Your task to perform on an android device: Search for custom wallets on etsy. Image 0: 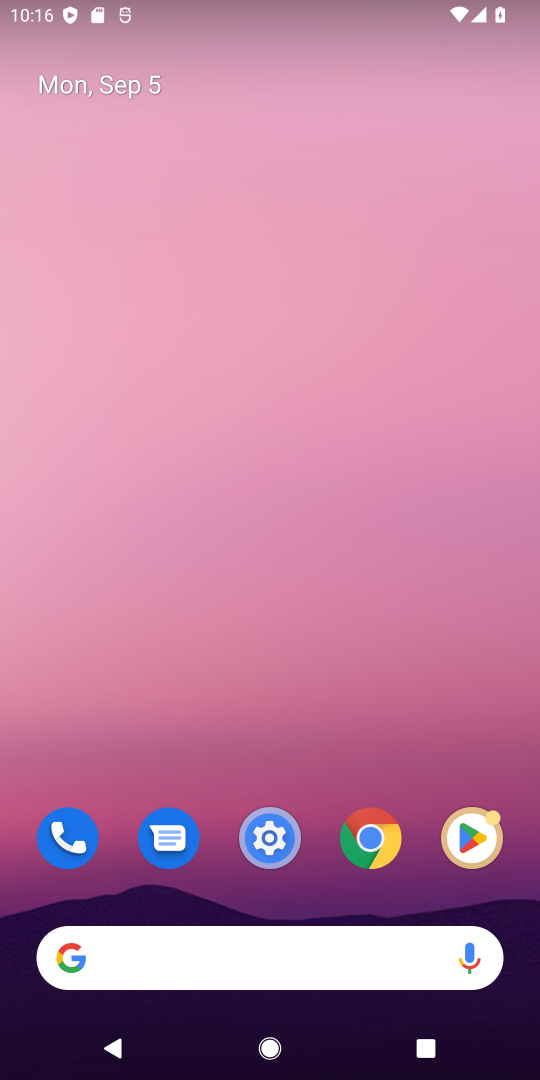
Step 0: click (229, 944)
Your task to perform on an android device: Search for custom wallets on etsy. Image 1: 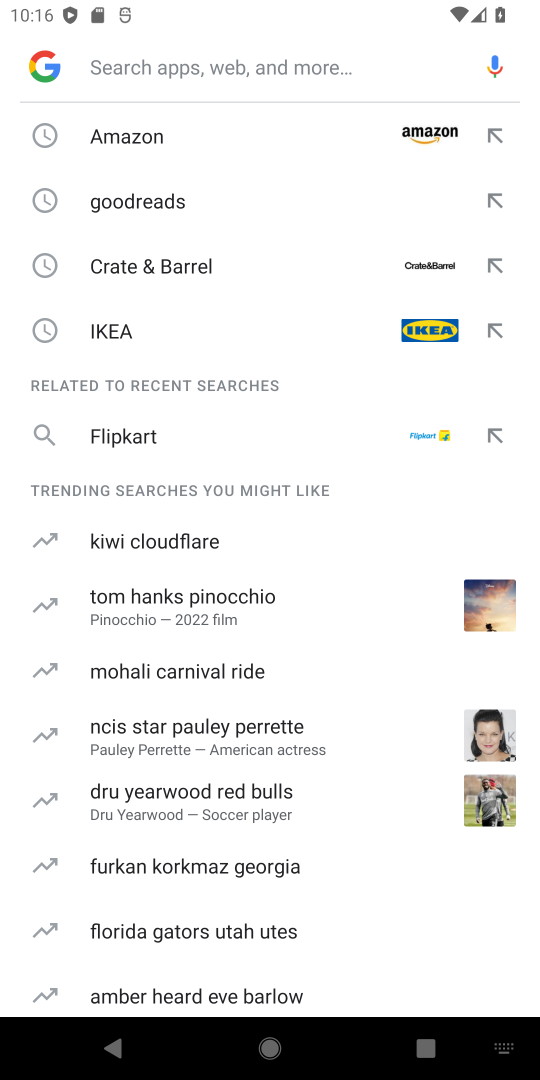
Step 1: type "etsy"
Your task to perform on an android device: Search for custom wallets on etsy. Image 2: 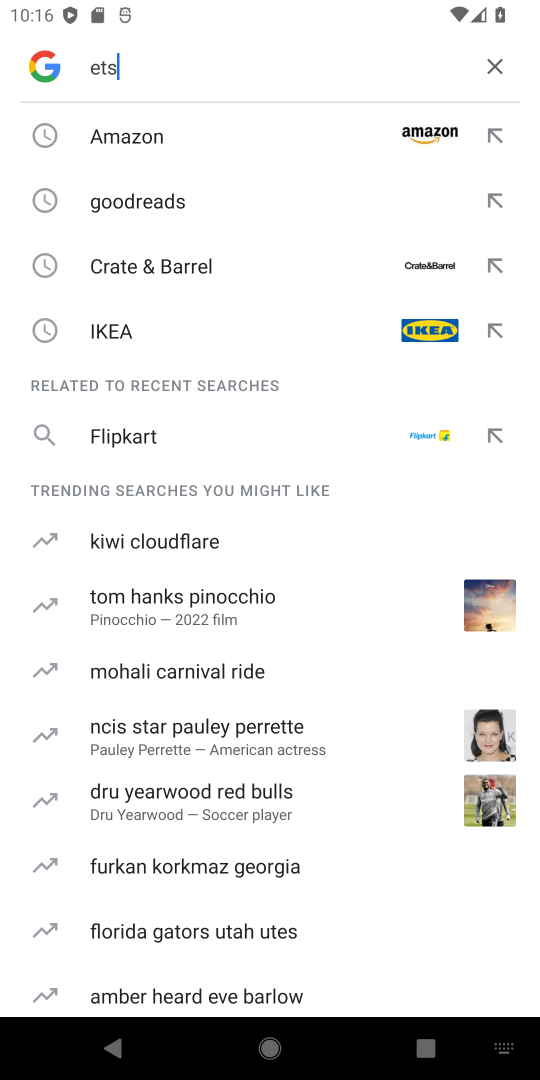
Step 2: type ""
Your task to perform on an android device: Search for custom wallets on etsy. Image 3: 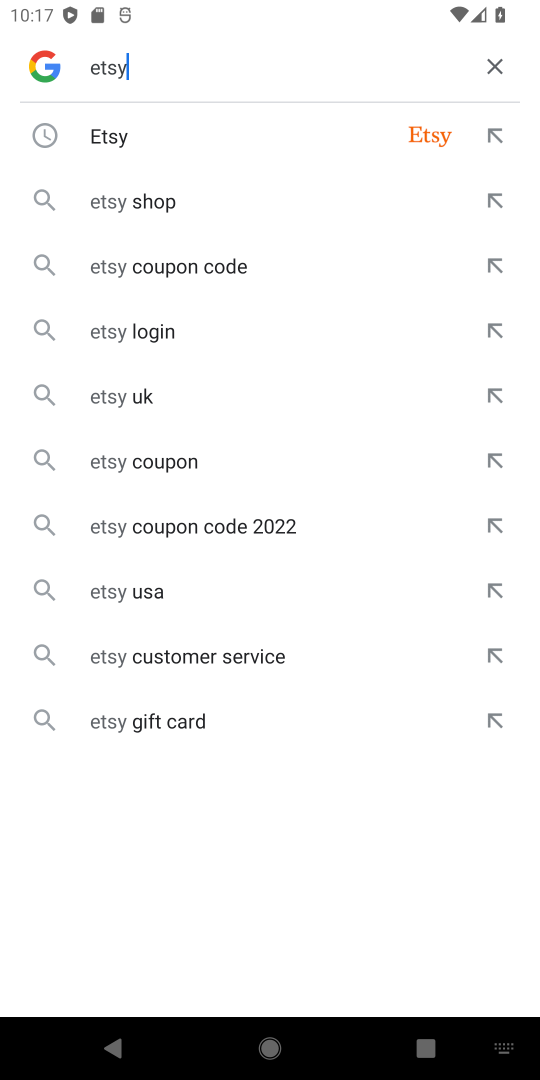
Step 3: click (118, 123)
Your task to perform on an android device: Search for custom wallets on etsy. Image 4: 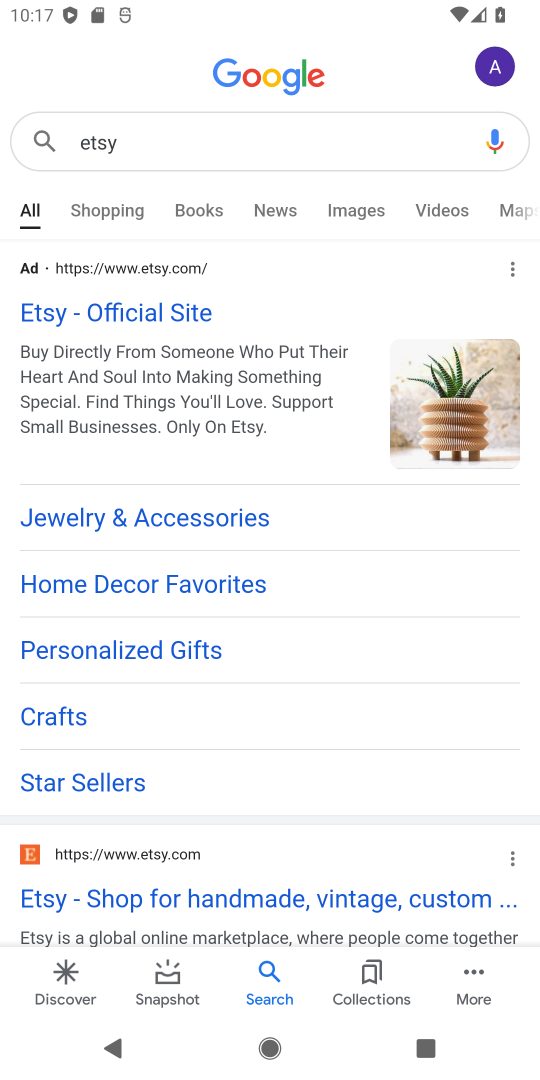
Step 4: drag from (197, 779) to (257, 424)
Your task to perform on an android device: Search for custom wallets on etsy. Image 5: 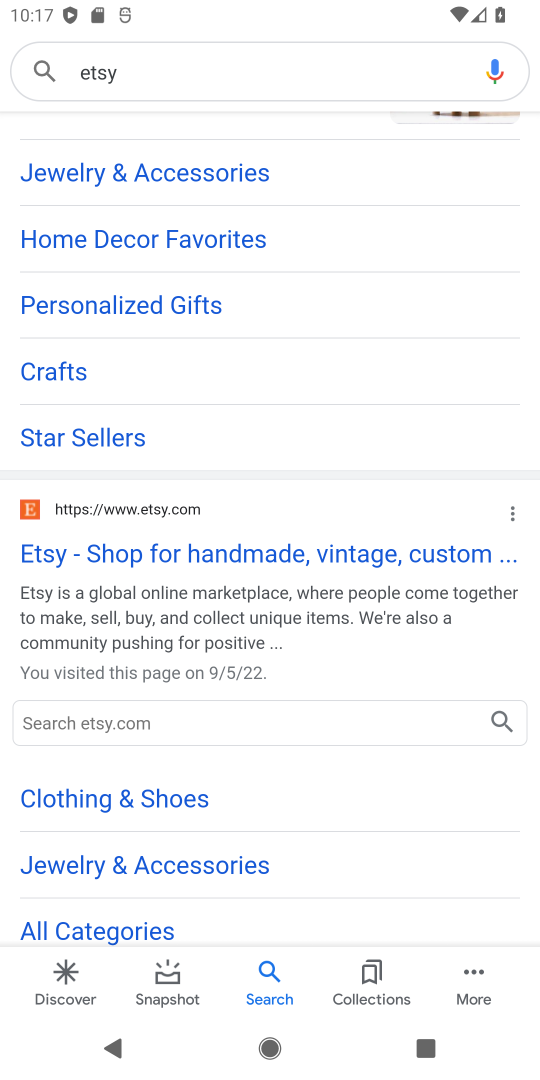
Step 5: click (239, 572)
Your task to perform on an android device: Search for custom wallets on etsy. Image 6: 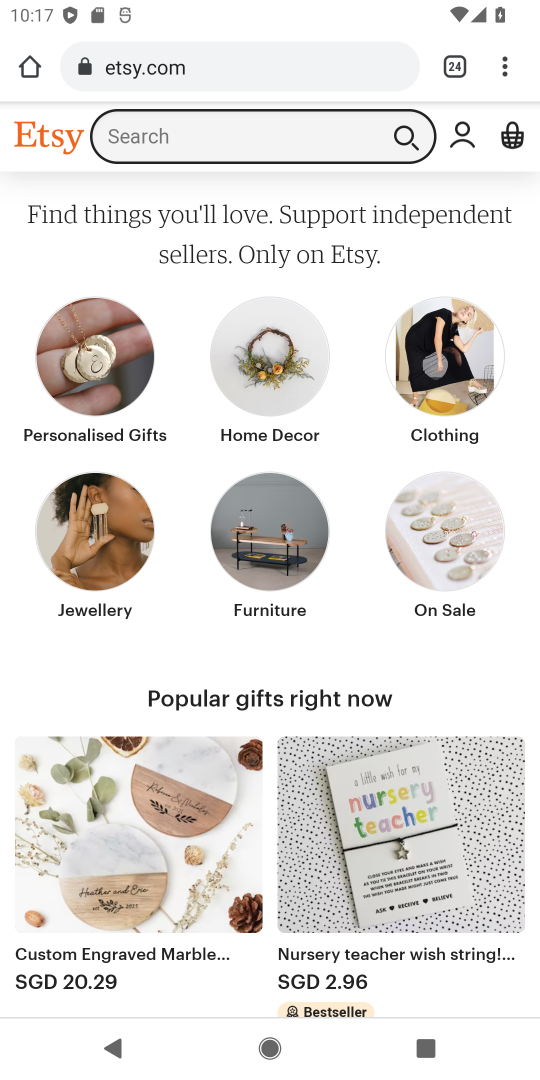
Step 6: click (264, 144)
Your task to perform on an android device: Search for custom wallets on etsy. Image 7: 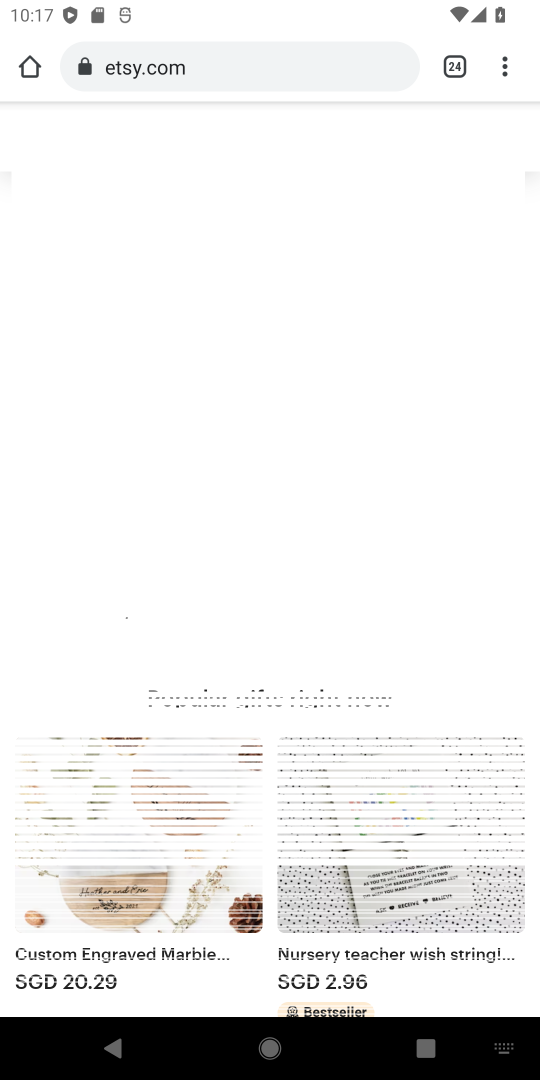
Step 7: type "custom wallets"
Your task to perform on an android device: Search for custom wallets on etsy. Image 8: 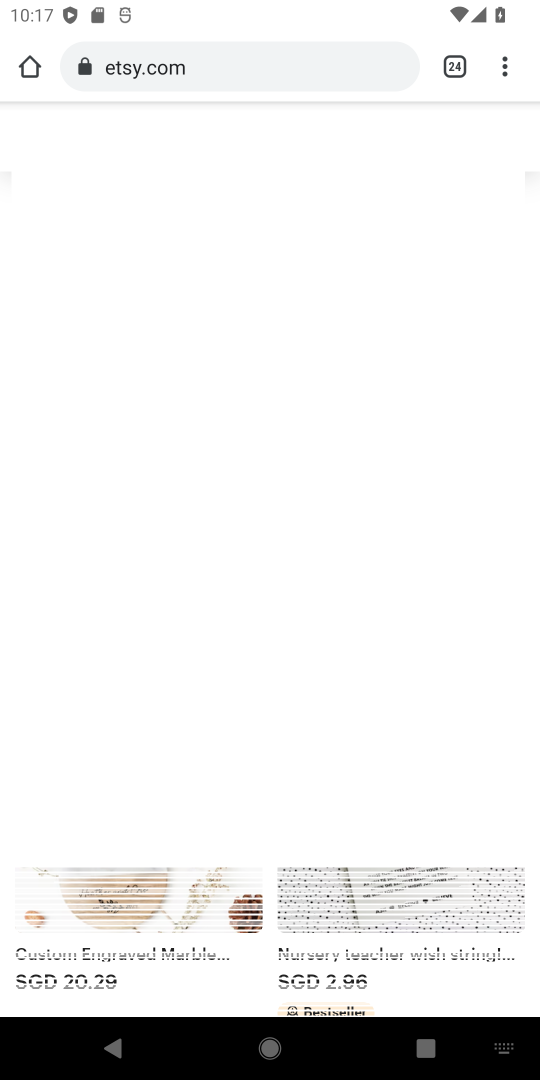
Step 8: type ""
Your task to perform on an android device: Search for custom wallets on etsy. Image 9: 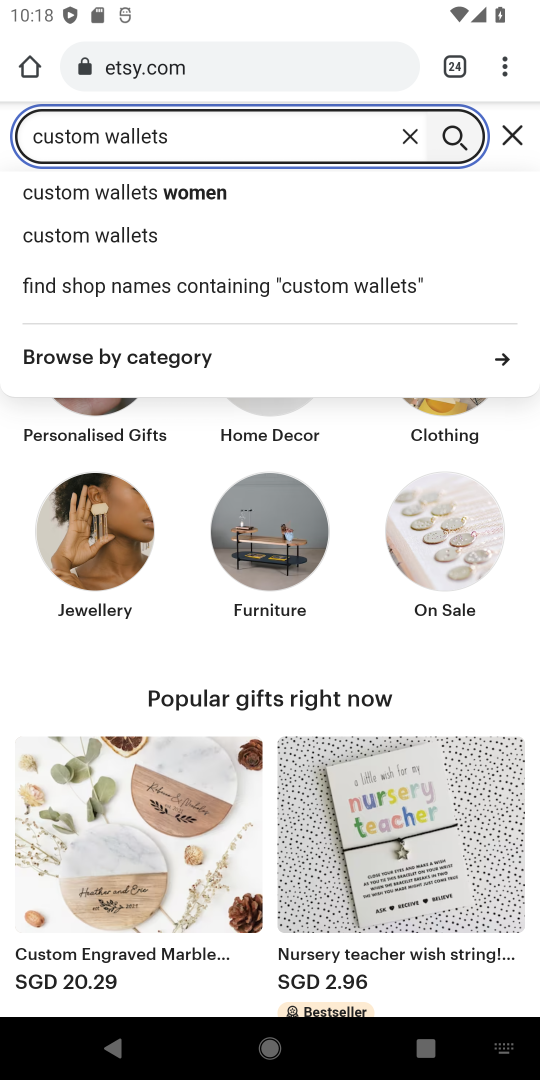
Step 9: click (157, 238)
Your task to perform on an android device: Search for custom wallets on etsy. Image 10: 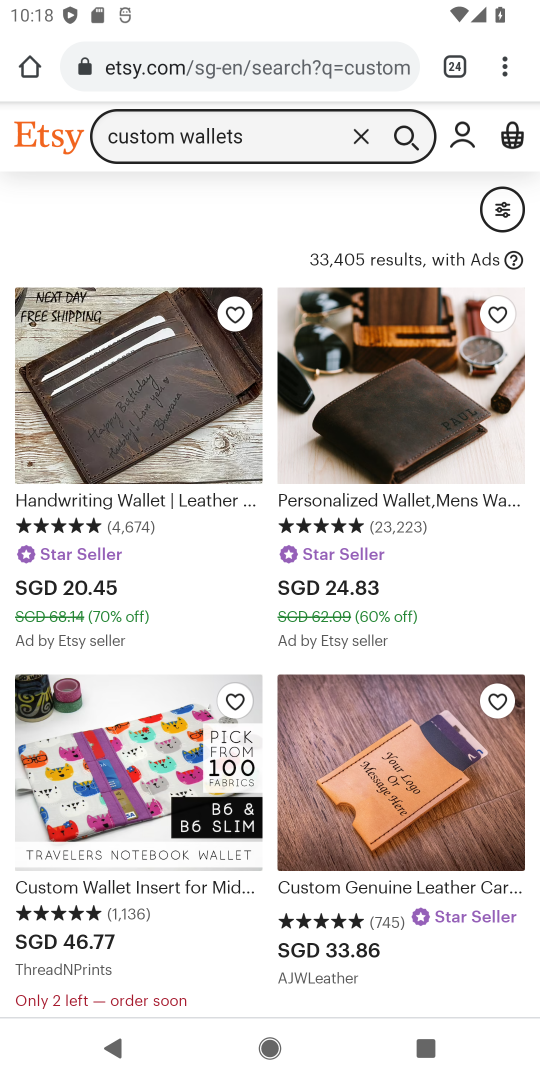
Step 10: task complete